Your task to perform on an android device: What's the weather going to be this weekend? Image 0: 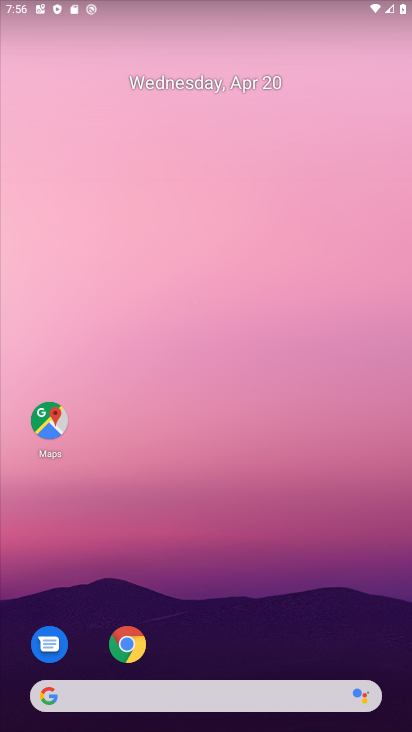
Step 0: click (211, 704)
Your task to perform on an android device: What's the weather going to be this weekend? Image 1: 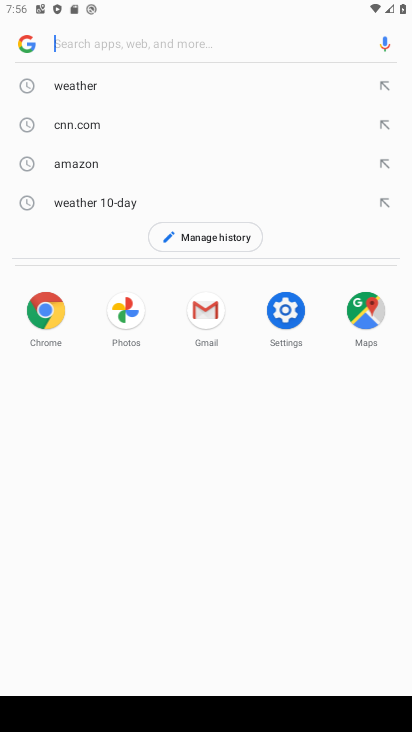
Step 1: click (106, 97)
Your task to perform on an android device: What's the weather going to be this weekend? Image 2: 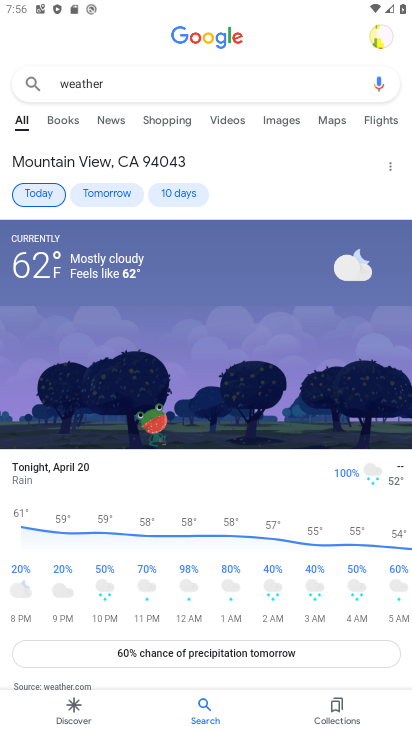
Step 2: task complete